Your task to perform on an android device: delete location history Image 0: 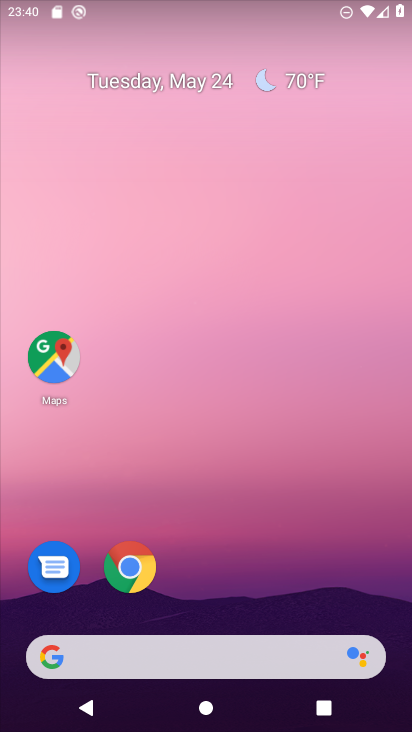
Step 0: press home button
Your task to perform on an android device: delete location history Image 1: 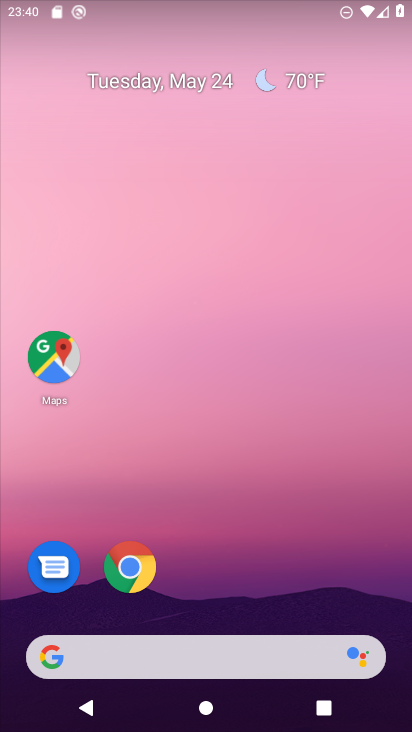
Step 1: drag from (270, 571) to (213, 62)
Your task to perform on an android device: delete location history Image 2: 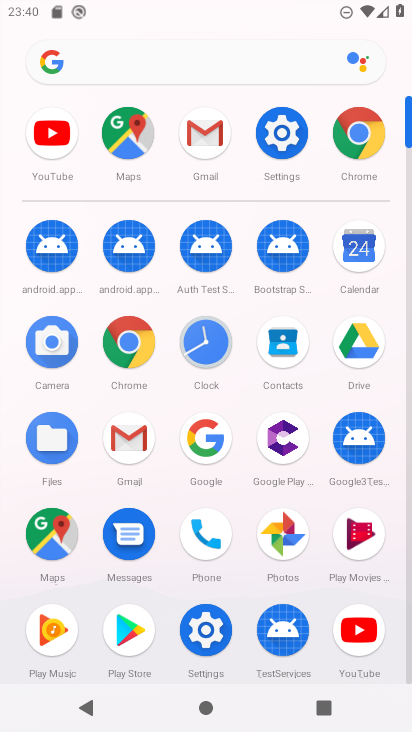
Step 2: click (280, 124)
Your task to perform on an android device: delete location history Image 3: 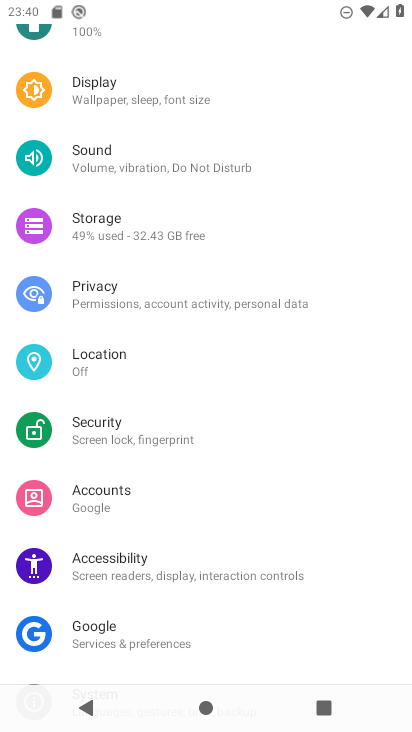
Step 3: click (181, 376)
Your task to perform on an android device: delete location history Image 4: 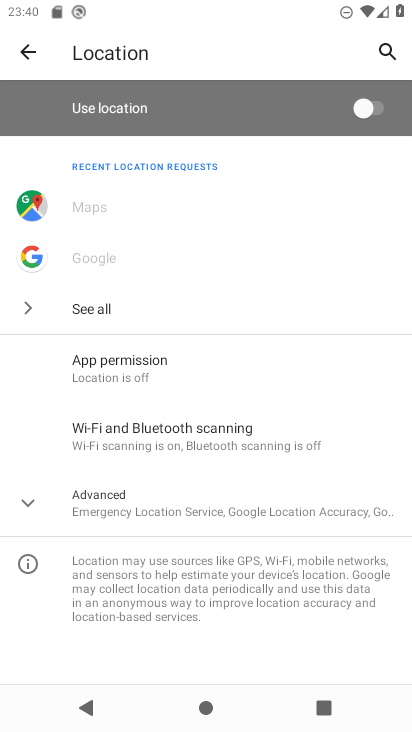
Step 4: click (218, 518)
Your task to perform on an android device: delete location history Image 5: 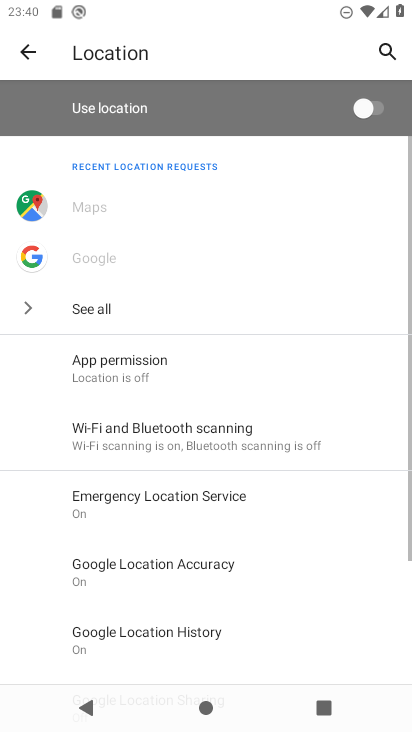
Step 5: click (219, 636)
Your task to perform on an android device: delete location history Image 6: 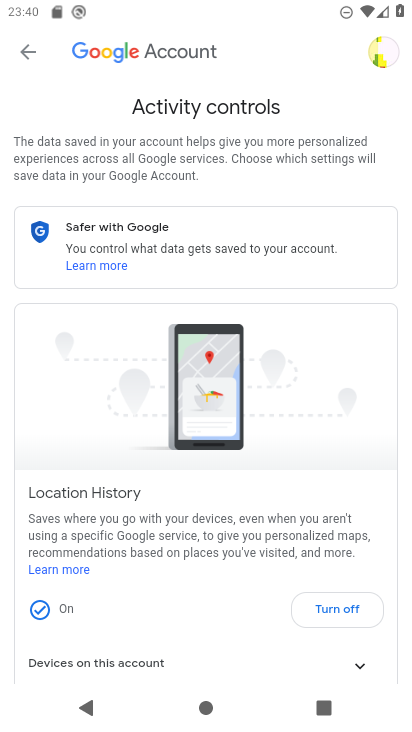
Step 6: drag from (184, 623) to (195, 343)
Your task to perform on an android device: delete location history Image 7: 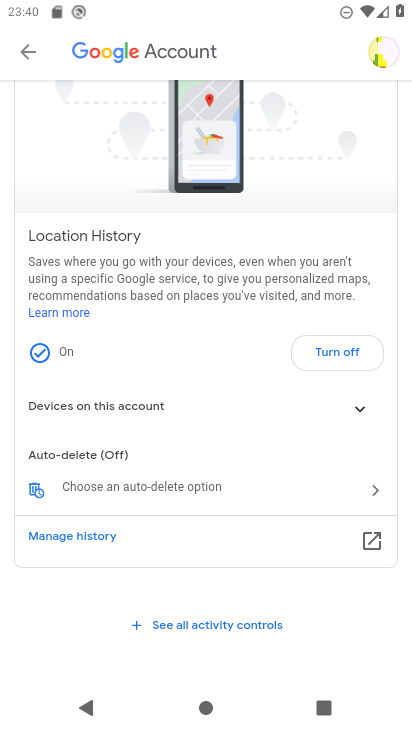
Step 7: click (39, 485)
Your task to perform on an android device: delete location history Image 8: 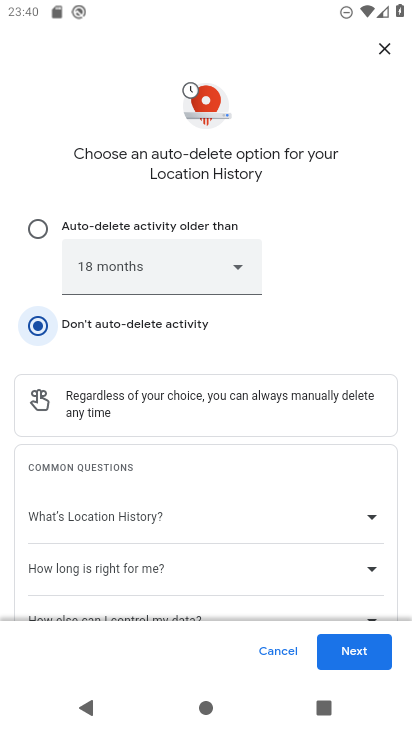
Step 8: click (344, 647)
Your task to perform on an android device: delete location history Image 9: 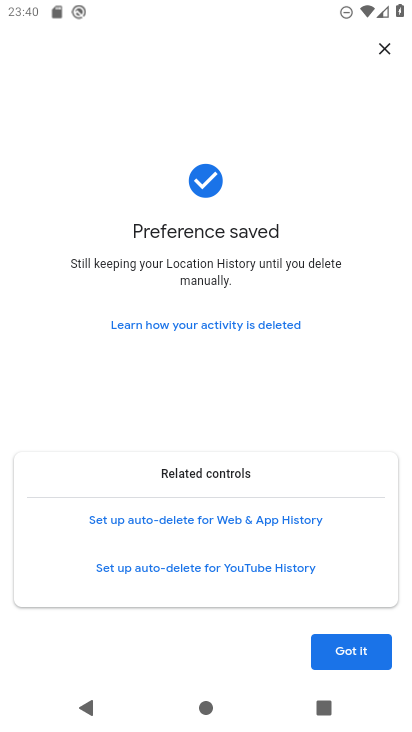
Step 9: click (355, 654)
Your task to perform on an android device: delete location history Image 10: 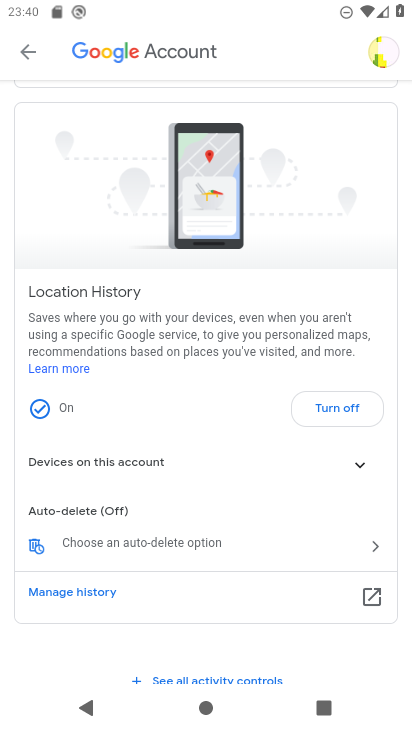
Step 10: task complete